Your task to perform on an android device: Open CNN.com Image 0: 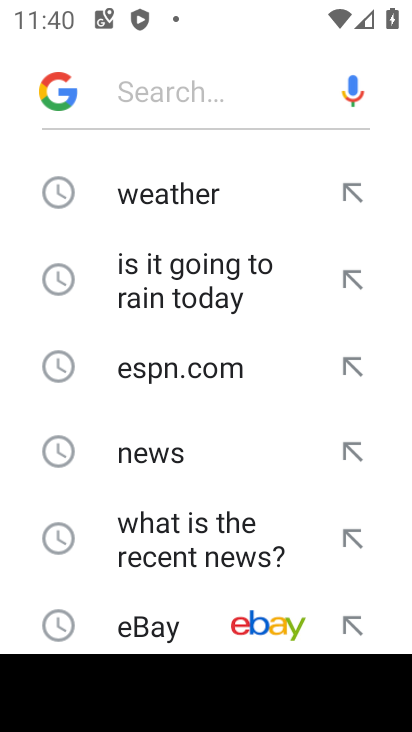
Step 0: press home button
Your task to perform on an android device: Open CNN.com Image 1: 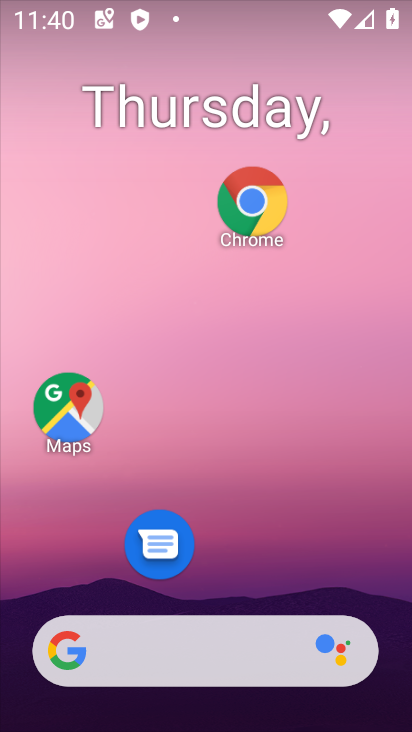
Step 1: click (257, 195)
Your task to perform on an android device: Open CNN.com Image 2: 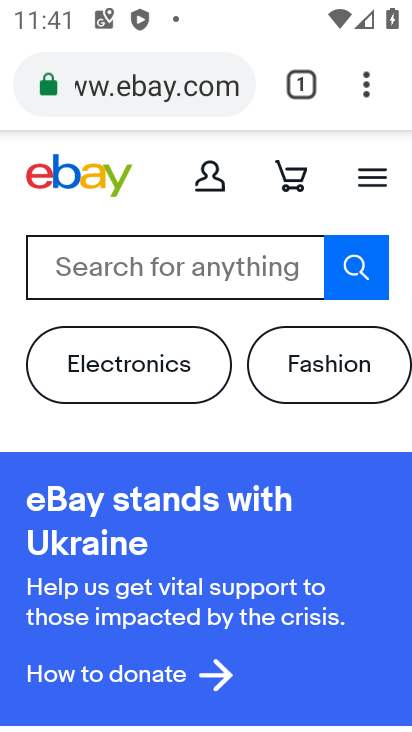
Step 2: click (291, 84)
Your task to perform on an android device: Open CNN.com Image 3: 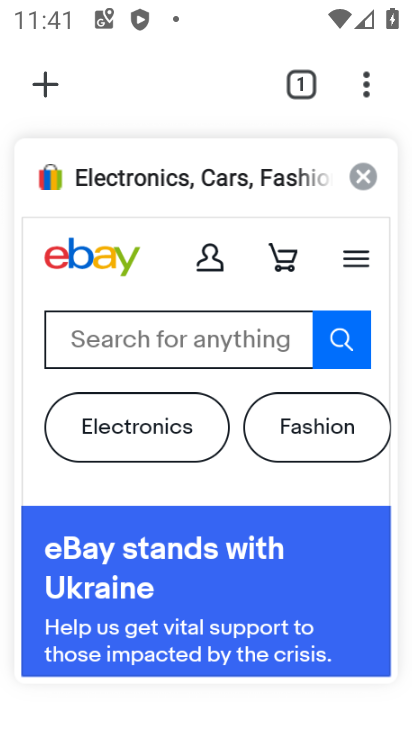
Step 3: click (50, 88)
Your task to perform on an android device: Open CNN.com Image 4: 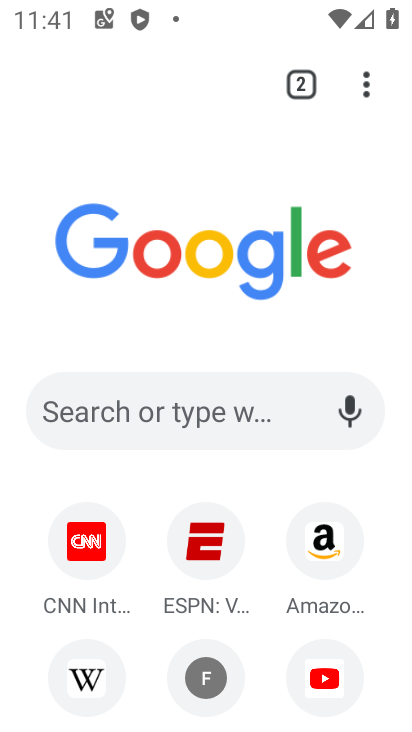
Step 4: click (83, 546)
Your task to perform on an android device: Open CNN.com Image 5: 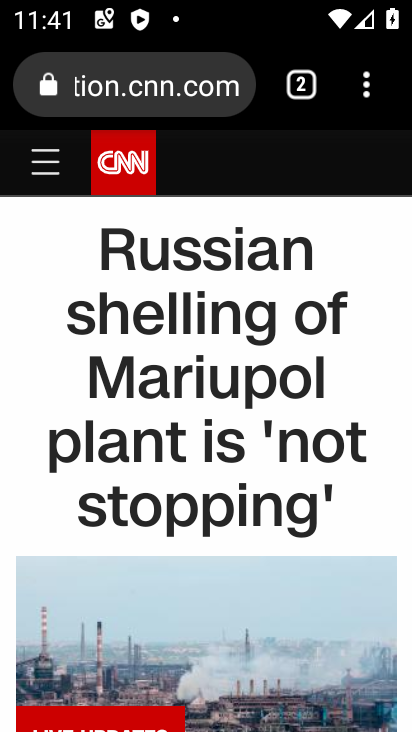
Step 5: task complete